Your task to perform on an android device: find which apps use the phone's location Image 0: 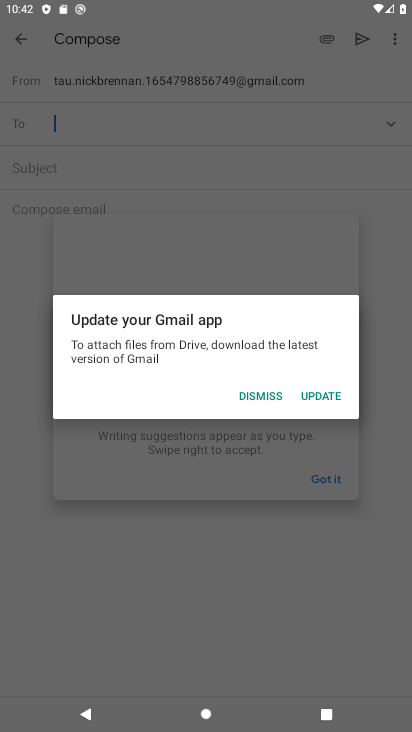
Step 0: click (307, 373)
Your task to perform on an android device: find which apps use the phone's location Image 1: 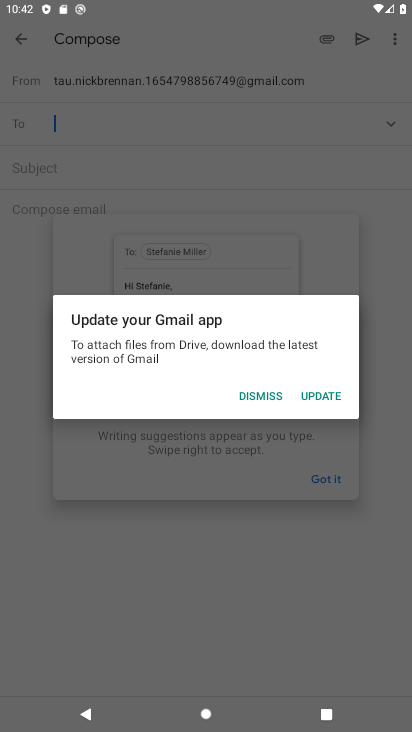
Step 1: click (268, 397)
Your task to perform on an android device: find which apps use the phone's location Image 2: 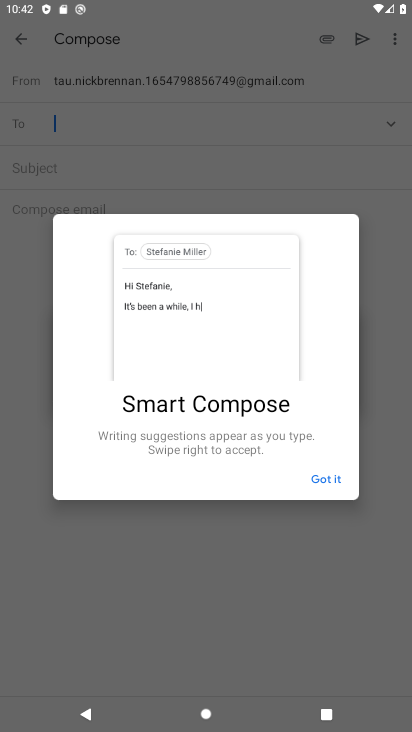
Step 2: click (322, 483)
Your task to perform on an android device: find which apps use the phone's location Image 3: 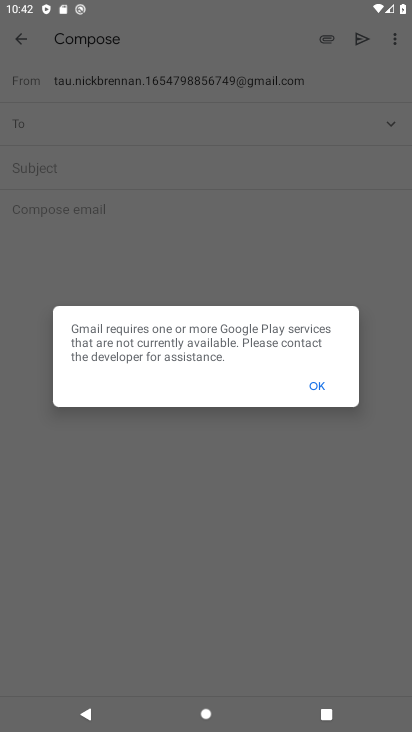
Step 3: click (320, 478)
Your task to perform on an android device: find which apps use the phone's location Image 4: 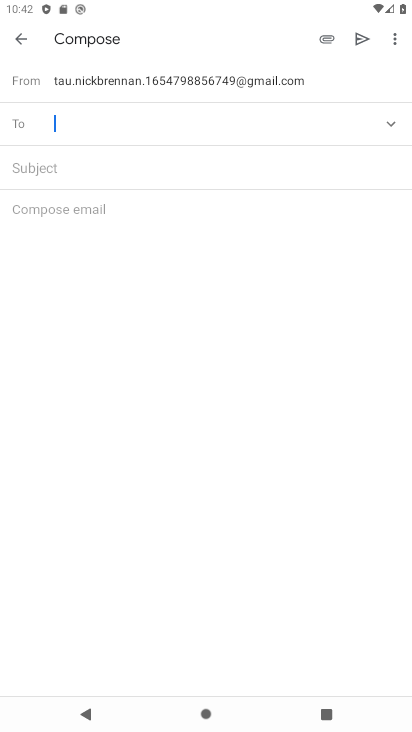
Step 4: click (334, 478)
Your task to perform on an android device: find which apps use the phone's location Image 5: 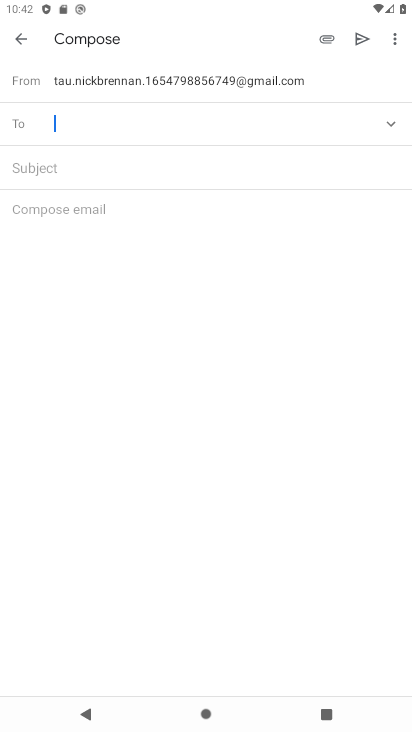
Step 5: click (333, 478)
Your task to perform on an android device: find which apps use the phone's location Image 6: 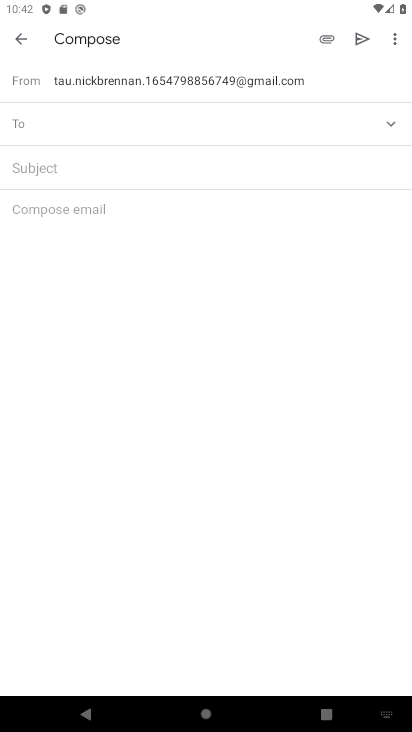
Step 6: click (360, 174)
Your task to perform on an android device: find which apps use the phone's location Image 7: 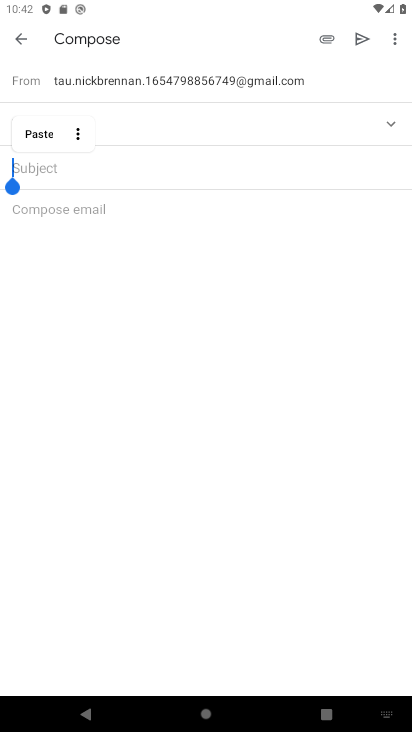
Step 7: click (325, 476)
Your task to perform on an android device: find which apps use the phone's location Image 8: 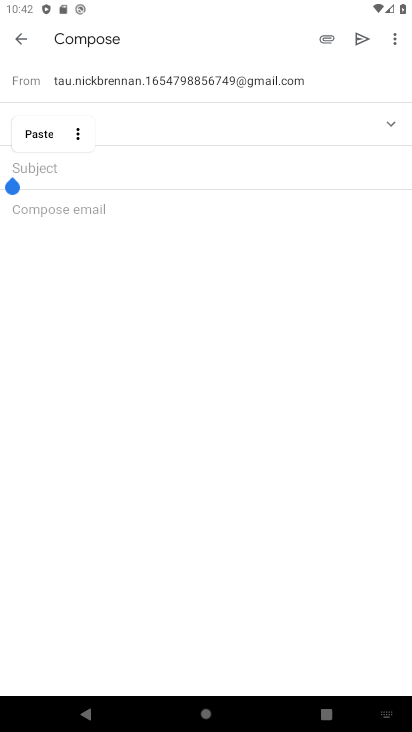
Step 8: click (327, 376)
Your task to perform on an android device: find which apps use the phone's location Image 9: 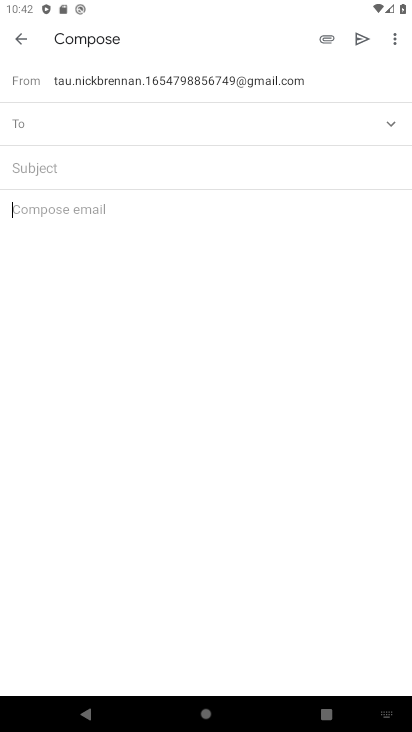
Step 9: click (323, 385)
Your task to perform on an android device: find which apps use the phone's location Image 10: 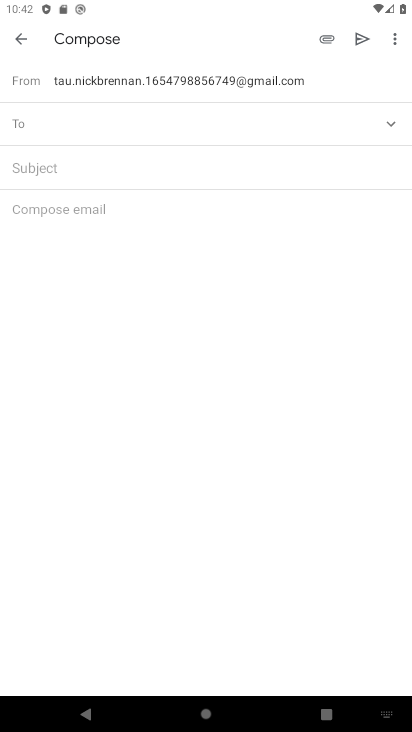
Step 10: click (318, 380)
Your task to perform on an android device: find which apps use the phone's location Image 11: 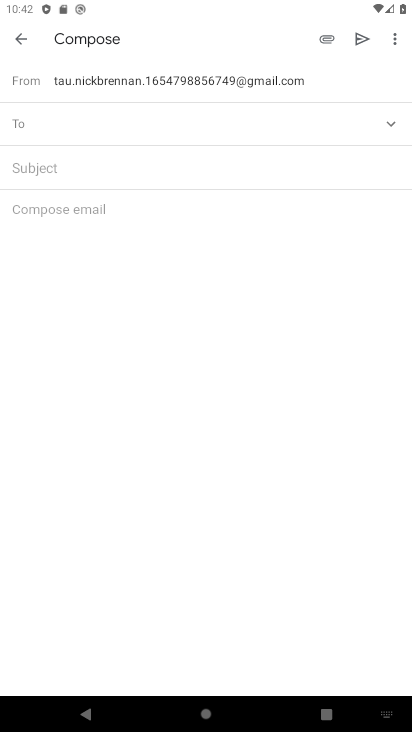
Step 11: press back button
Your task to perform on an android device: find which apps use the phone's location Image 12: 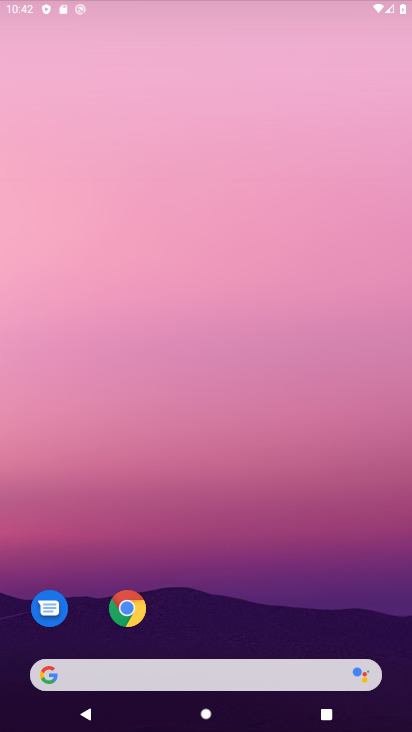
Step 12: click (22, 35)
Your task to perform on an android device: find which apps use the phone's location Image 13: 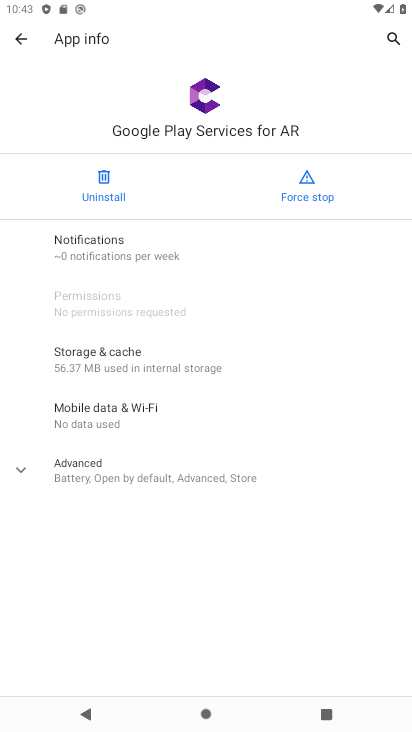
Step 13: click (23, 36)
Your task to perform on an android device: find which apps use the phone's location Image 14: 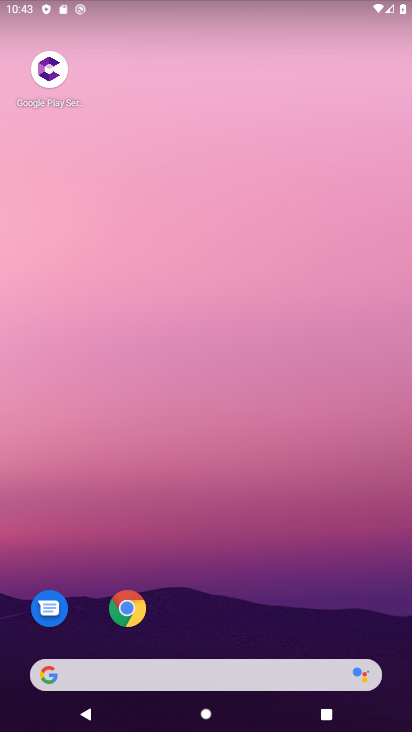
Step 14: click (27, 42)
Your task to perform on an android device: find which apps use the phone's location Image 15: 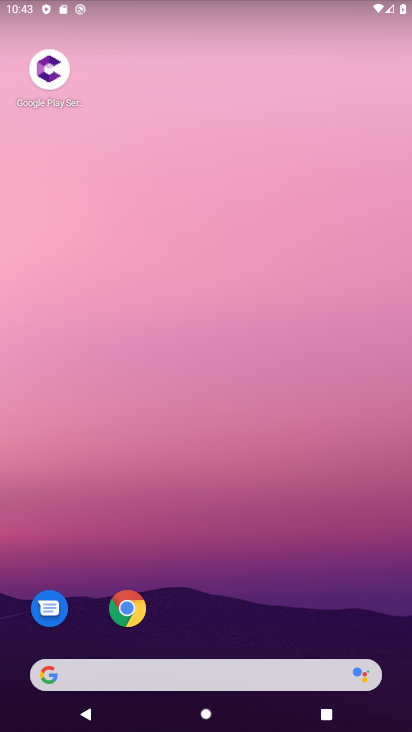
Step 15: click (27, 42)
Your task to perform on an android device: find which apps use the phone's location Image 16: 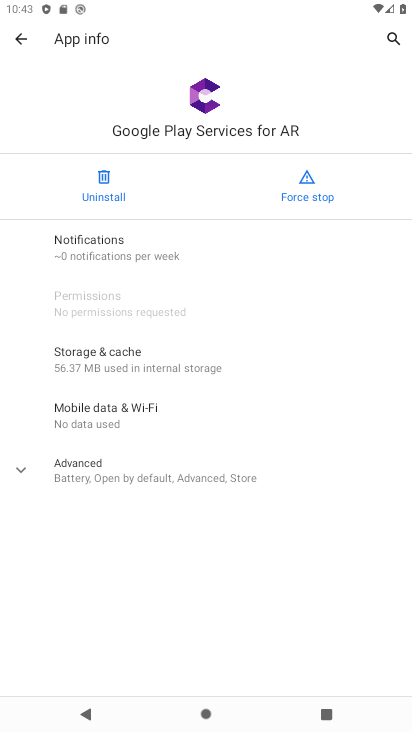
Step 16: task complete